Your task to perform on an android device: Add razer thresher to the cart on costco Image 0: 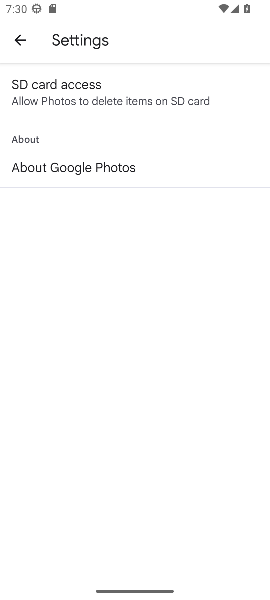
Step 0: press home button
Your task to perform on an android device: Add razer thresher to the cart on costco Image 1: 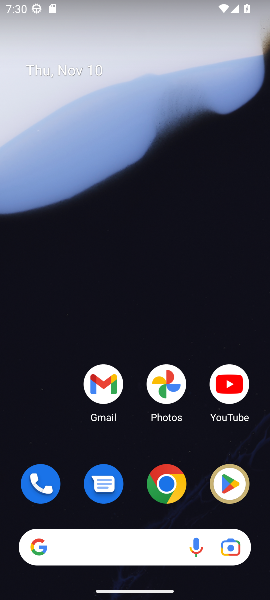
Step 1: click (171, 490)
Your task to perform on an android device: Add razer thresher to the cart on costco Image 2: 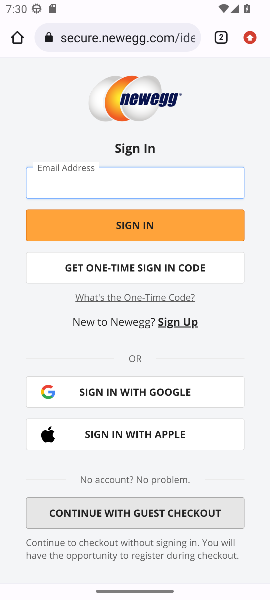
Step 2: click (116, 40)
Your task to perform on an android device: Add razer thresher to the cart on costco Image 3: 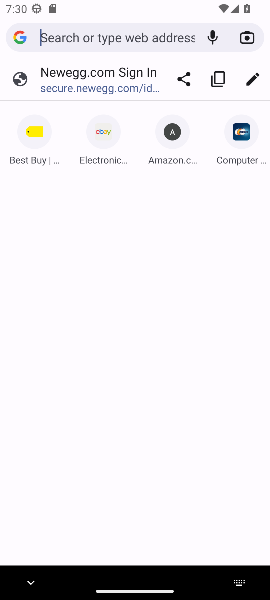
Step 3: type "costco.com"
Your task to perform on an android device: Add razer thresher to the cart on costco Image 4: 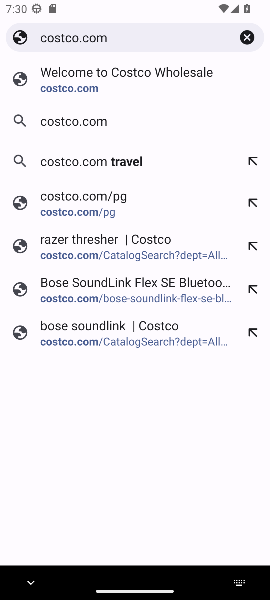
Step 4: click (83, 76)
Your task to perform on an android device: Add razer thresher to the cart on costco Image 5: 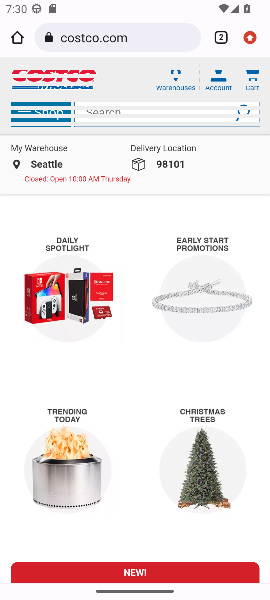
Step 5: click (118, 112)
Your task to perform on an android device: Add razer thresher to the cart on costco Image 6: 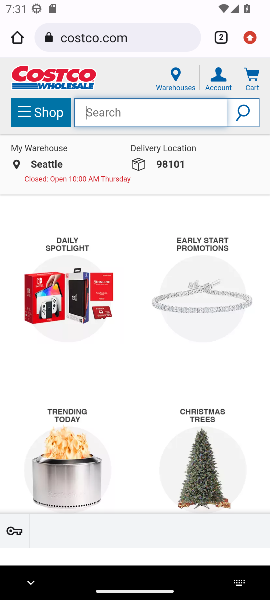
Step 6: type "razer thresher"
Your task to perform on an android device: Add razer thresher to the cart on costco Image 7: 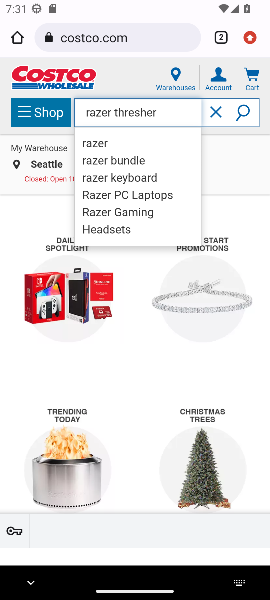
Step 7: click (244, 111)
Your task to perform on an android device: Add razer thresher to the cart on costco Image 8: 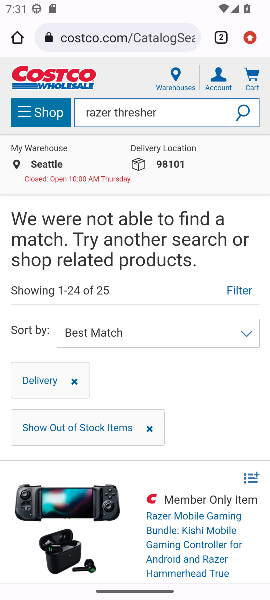
Step 8: task complete